Your task to perform on an android device: Open Google Chrome and open the bookmarks view Image 0: 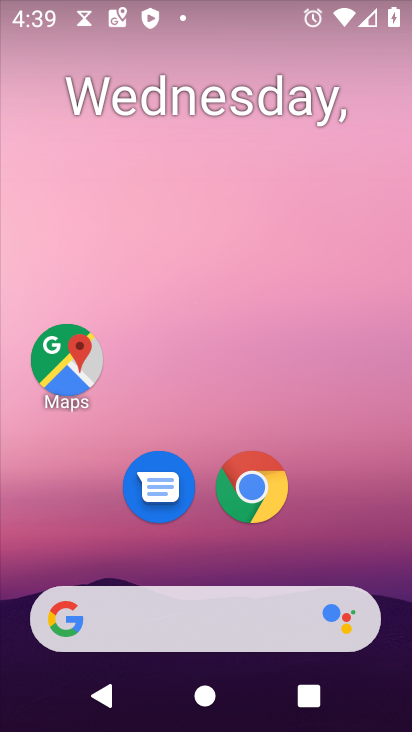
Step 0: drag from (192, 488) to (222, 85)
Your task to perform on an android device: Open Google Chrome and open the bookmarks view Image 1: 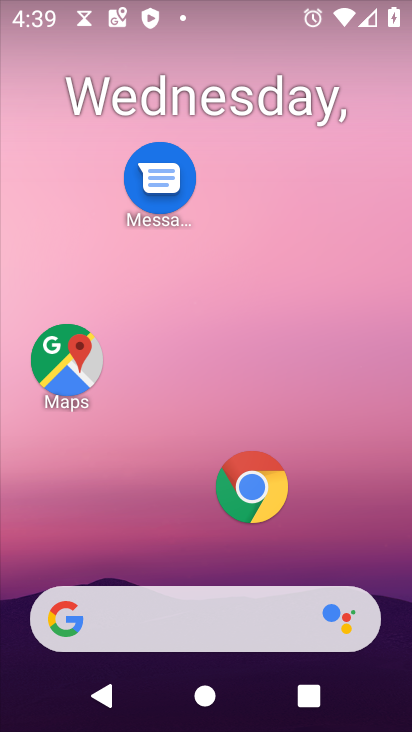
Step 1: drag from (325, 546) to (350, 116)
Your task to perform on an android device: Open Google Chrome and open the bookmarks view Image 2: 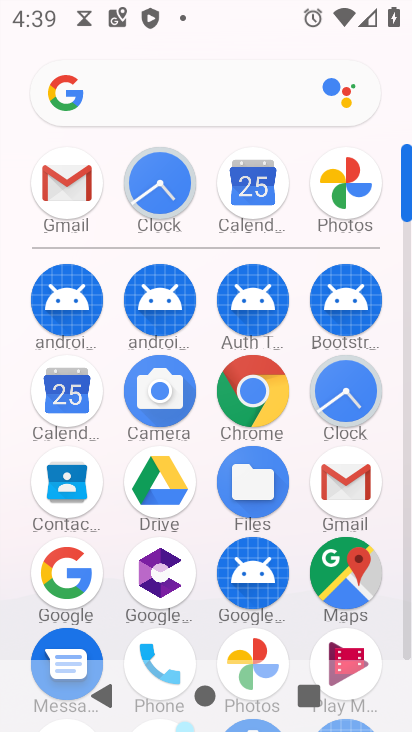
Step 2: click (250, 384)
Your task to perform on an android device: Open Google Chrome and open the bookmarks view Image 3: 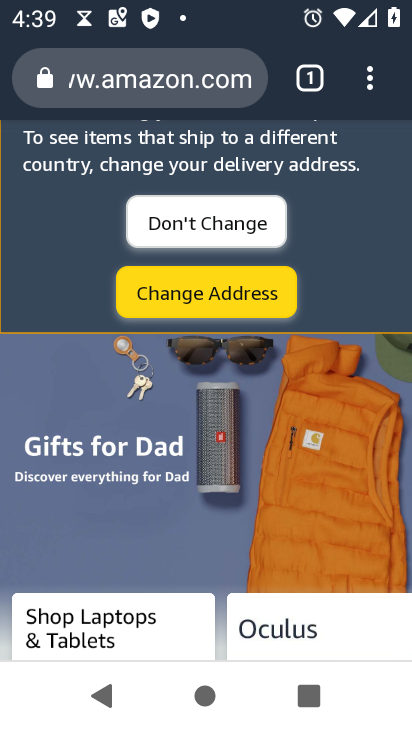
Step 3: click (372, 64)
Your task to perform on an android device: Open Google Chrome and open the bookmarks view Image 4: 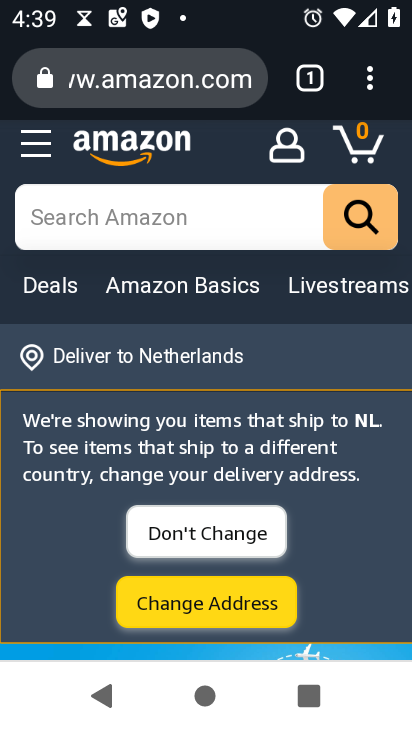
Step 4: task complete